Your task to perform on an android device: Open Chrome and go to settings Image 0: 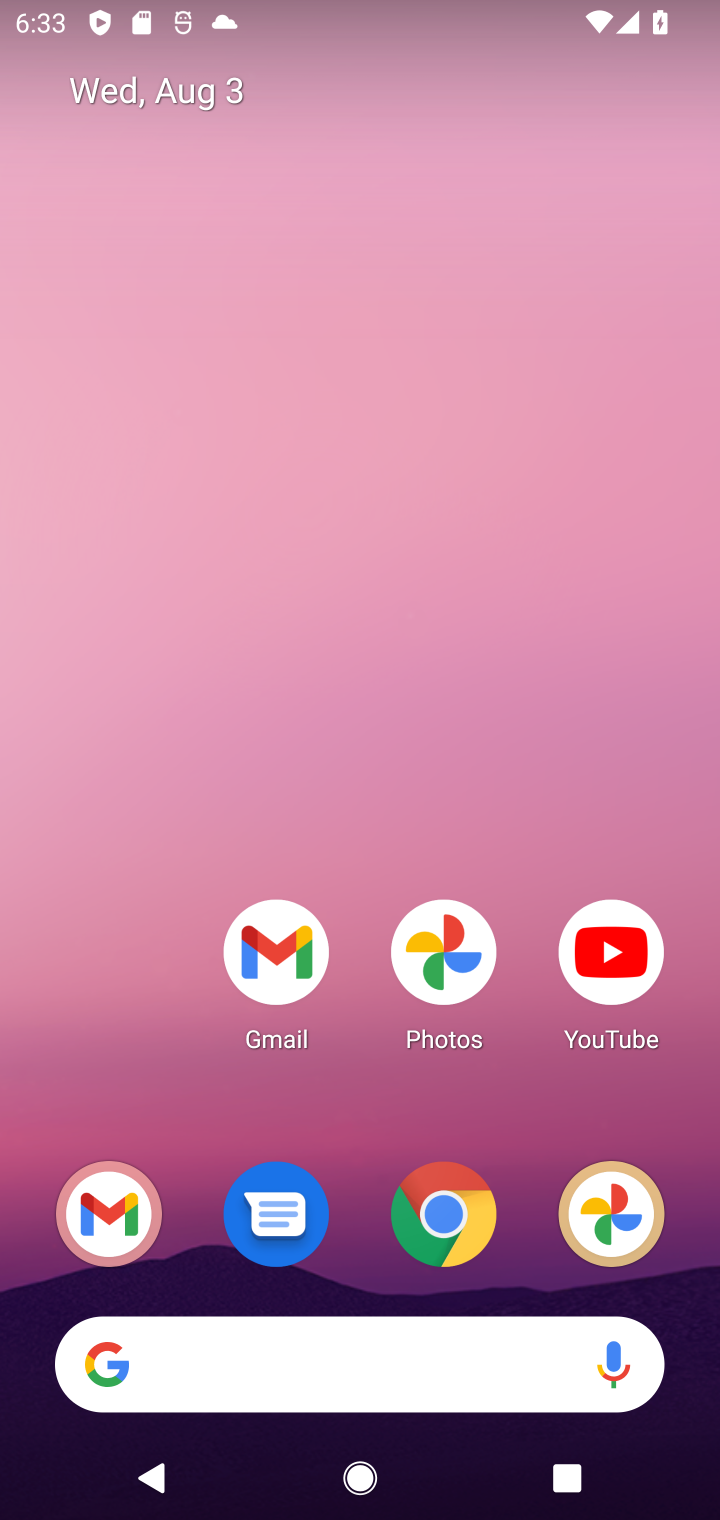
Step 0: drag from (87, 1120) to (211, 137)
Your task to perform on an android device: Open Chrome and go to settings Image 1: 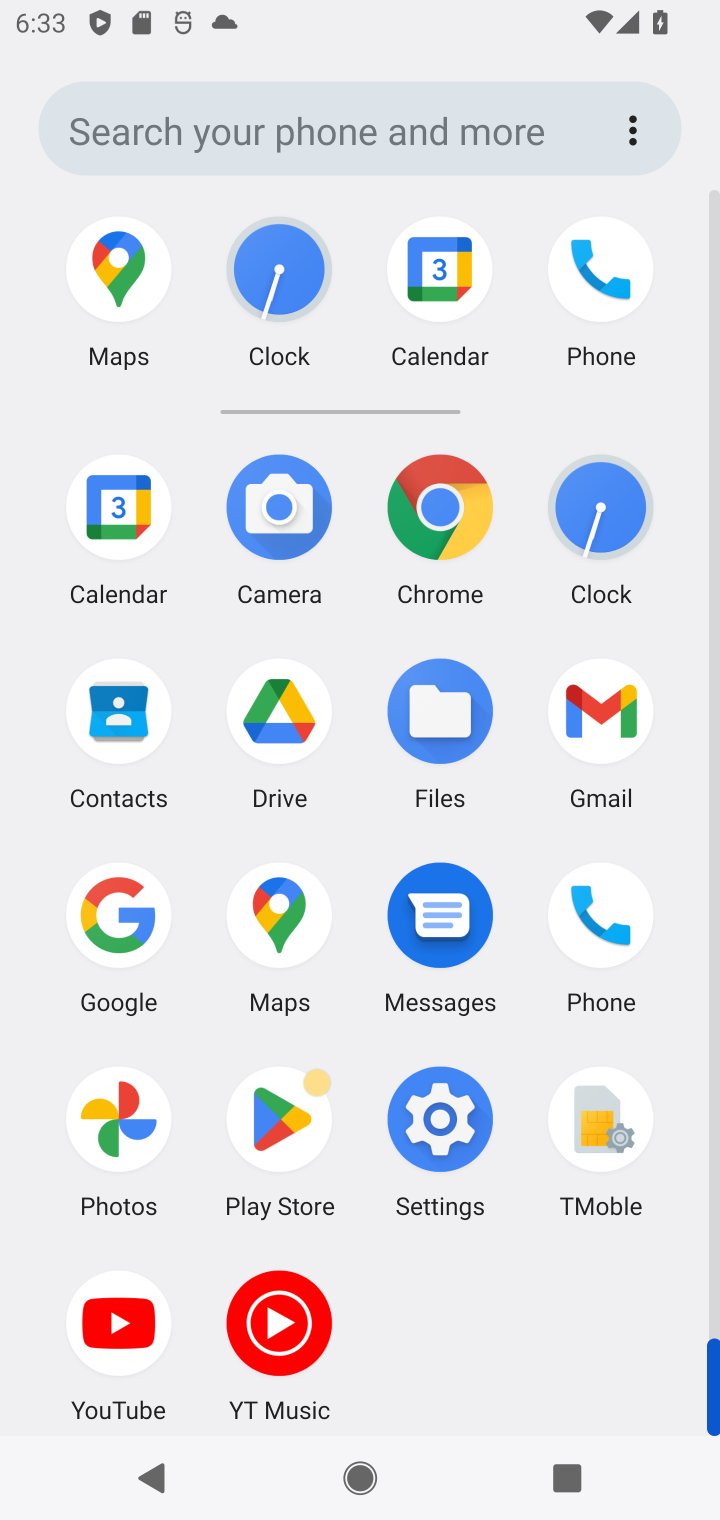
Step 1: click (438, 530)
Your task to perform on an android device: Open Chrome and go to settings Image 2: 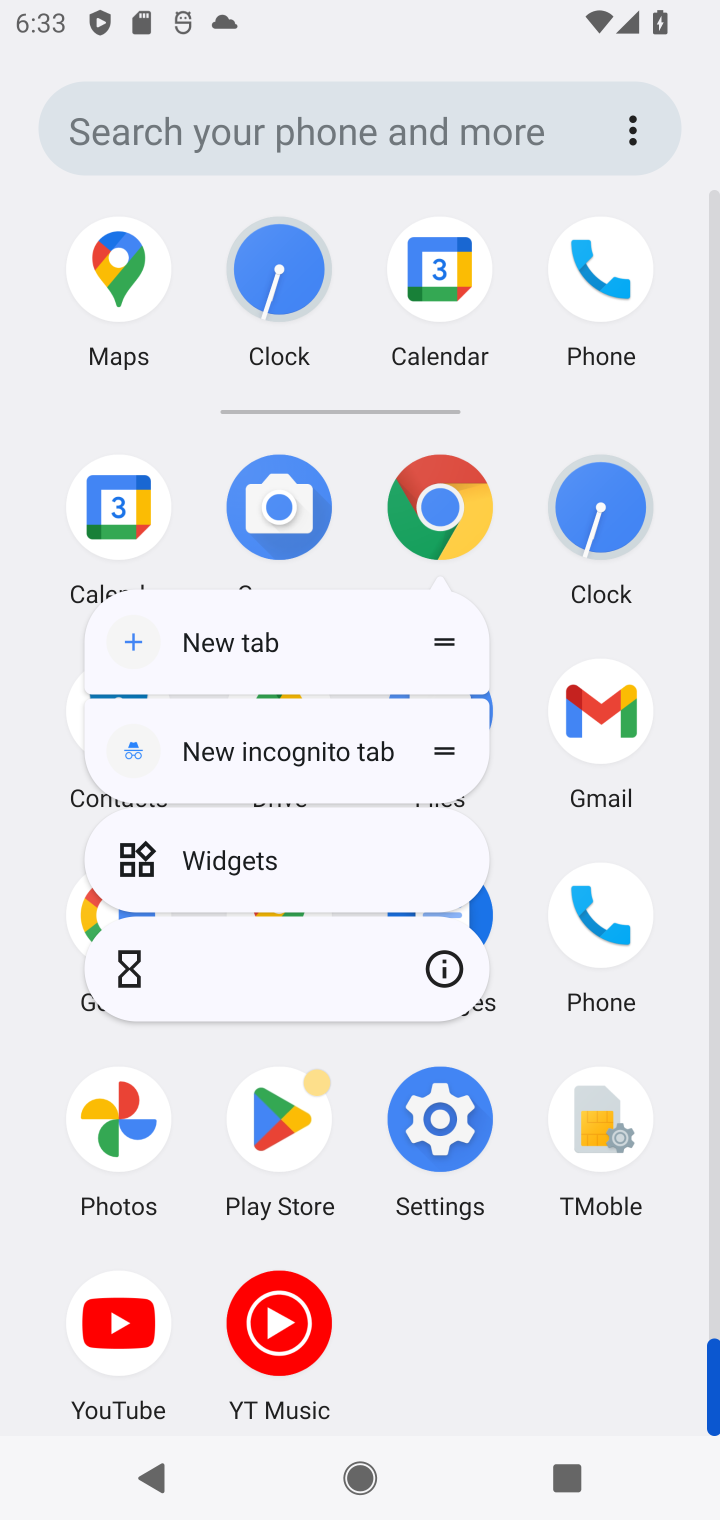
Step 2: click (430, 519)
Your task to perform on an android device: Open Chrome and go to settings Image 3: 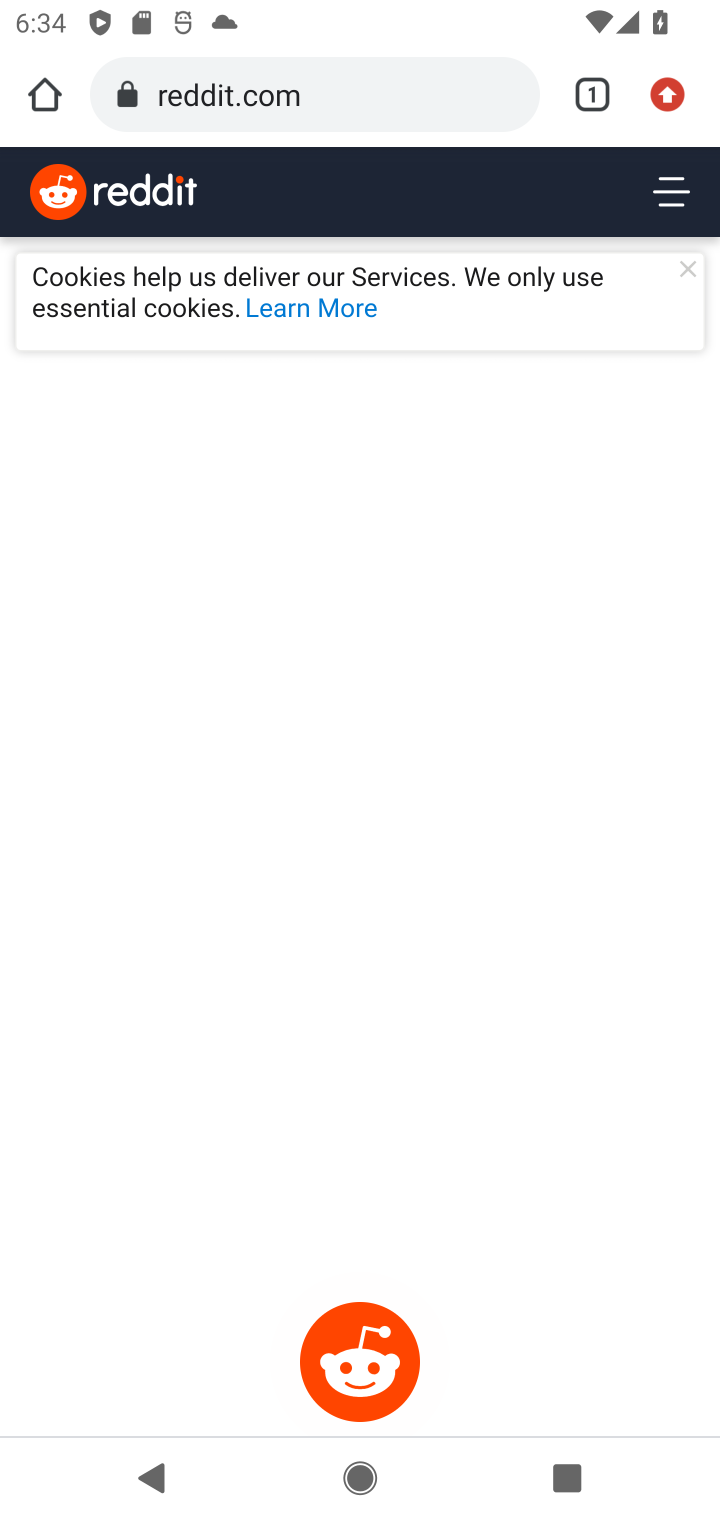
Step 3: task complete